Your task to perform on an android device: install app "Microsoft Excel" Image 0: 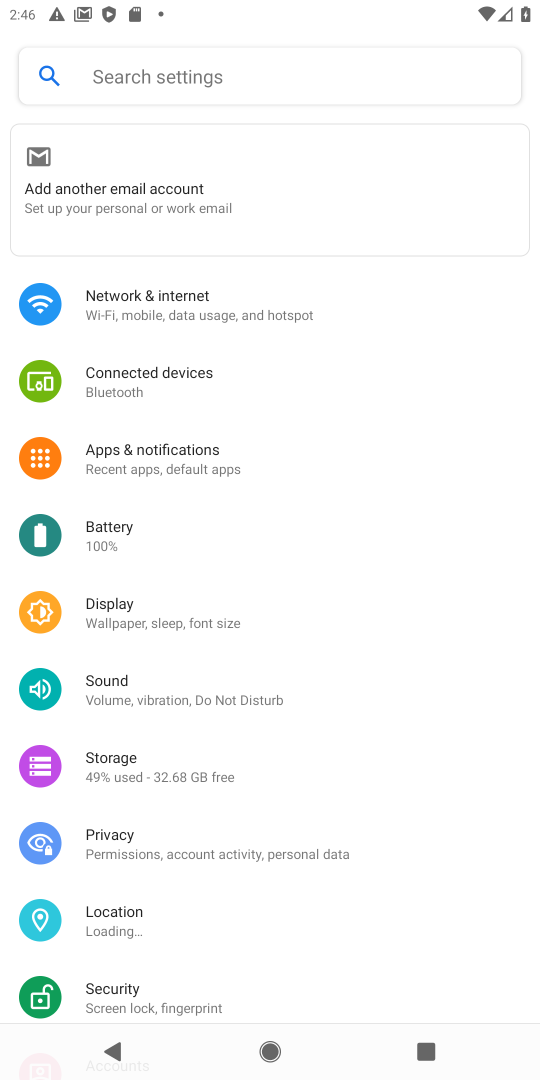
Step 0: press home button
Your task to perform on an android device: install app "Microsoft Excel" Image 1: 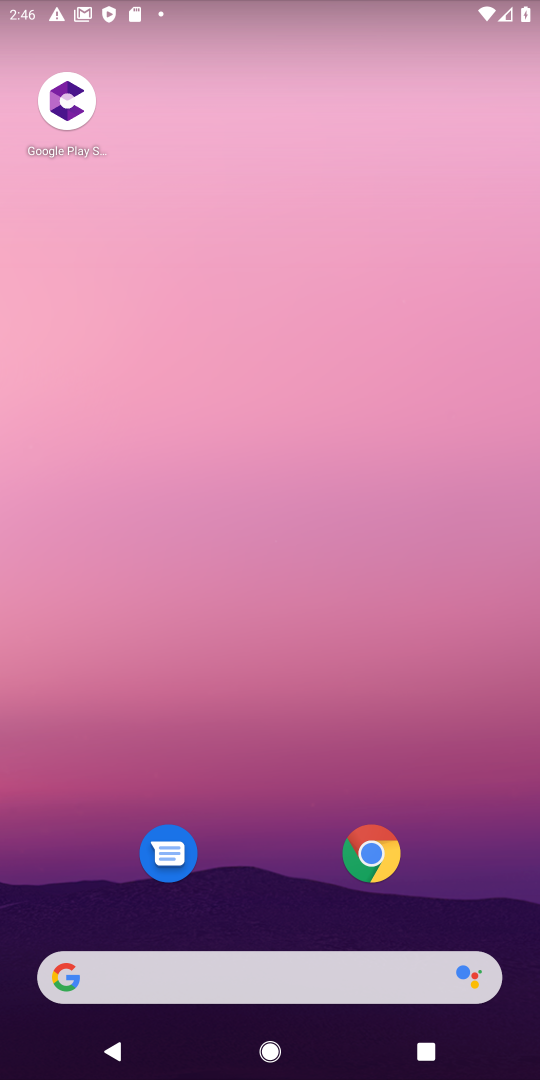
Step 1: drag from (291, 898) to (291, 389)
Your task to perform on an android device: install app "Microsoft Excel" Image 2: 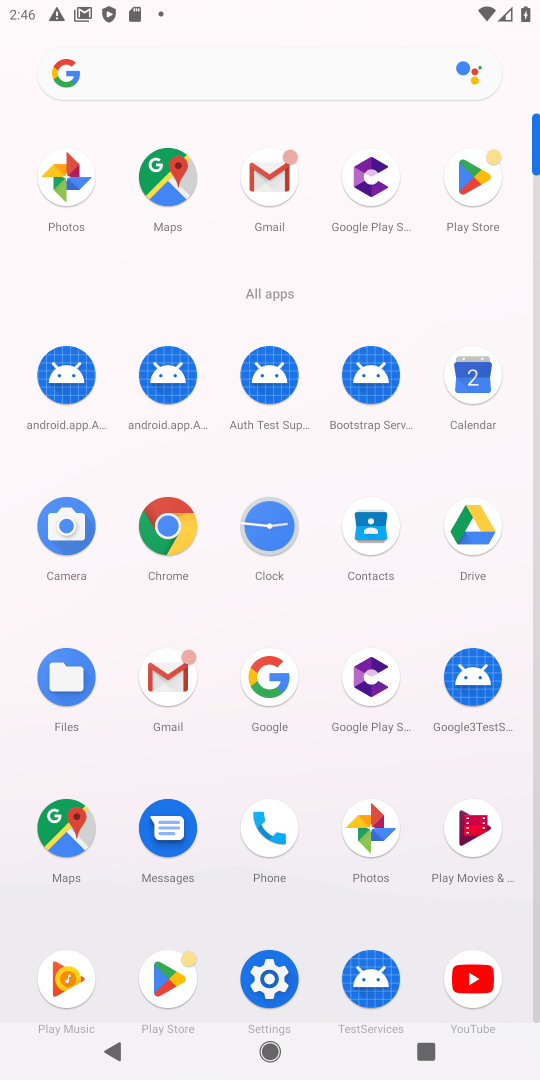
Step 2: click (461, 161)
Your task to perform on an android device: install app "Microsoft Excel" Image 3: 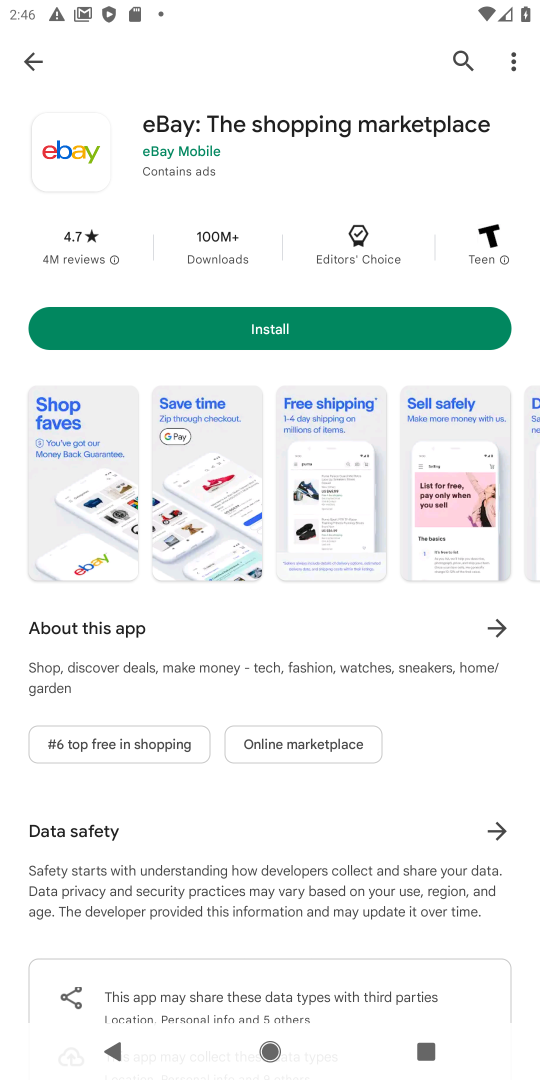
Step 3: click (463, 59)
Your task to perform on an android device: install app "Microsoft Excel" Image 4: 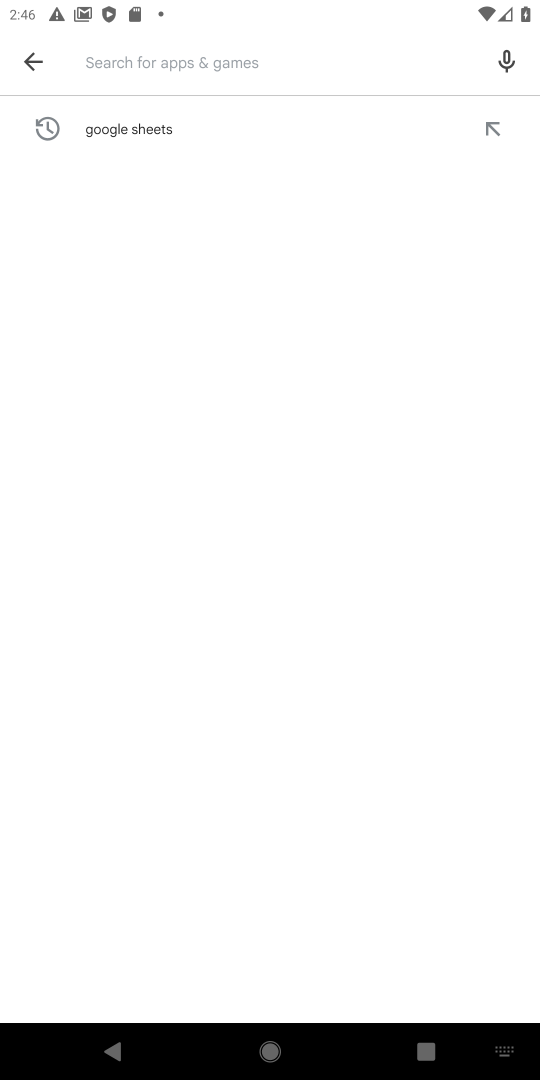
Step 4: type "microsoft excel"
Your task to perform on an android device: install app "Microsoft Excel" Image 5: 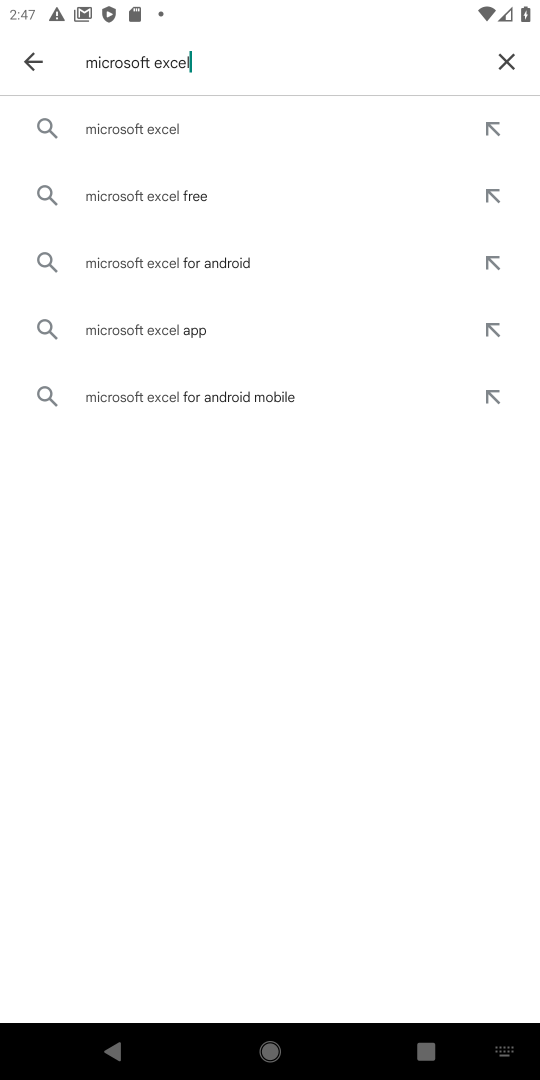
Step 5: click (361, 117)
Your task to perform on an android device: install app "Microsoft Excel" Image 6: 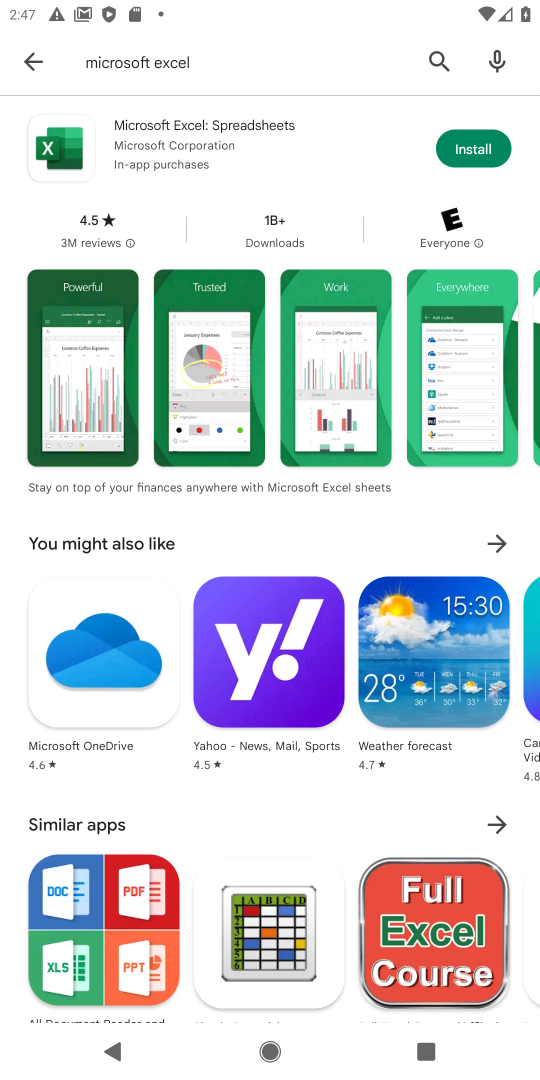
Step 6: click (250, 149)
Your task to perform on an android device: install app "Microsoft Excel" Image 7: 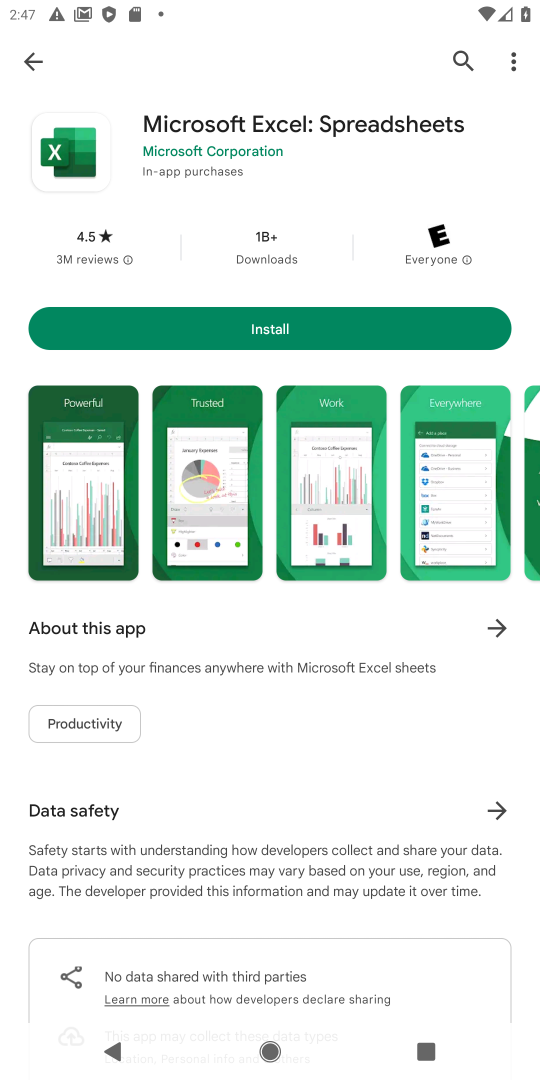
Step 7: click (313, 332)
Your task to perform on an android device: install app "Microsoft Excel" Image 8: 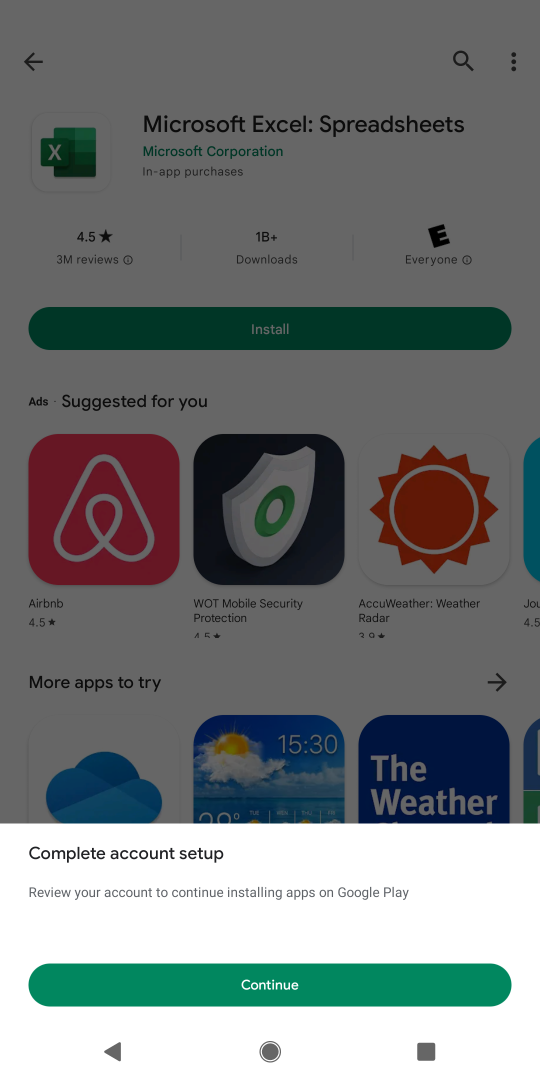
Step 8: click (313, 332)
Your task to perform on an android device: install app "Microsoft Excel" Image 9: 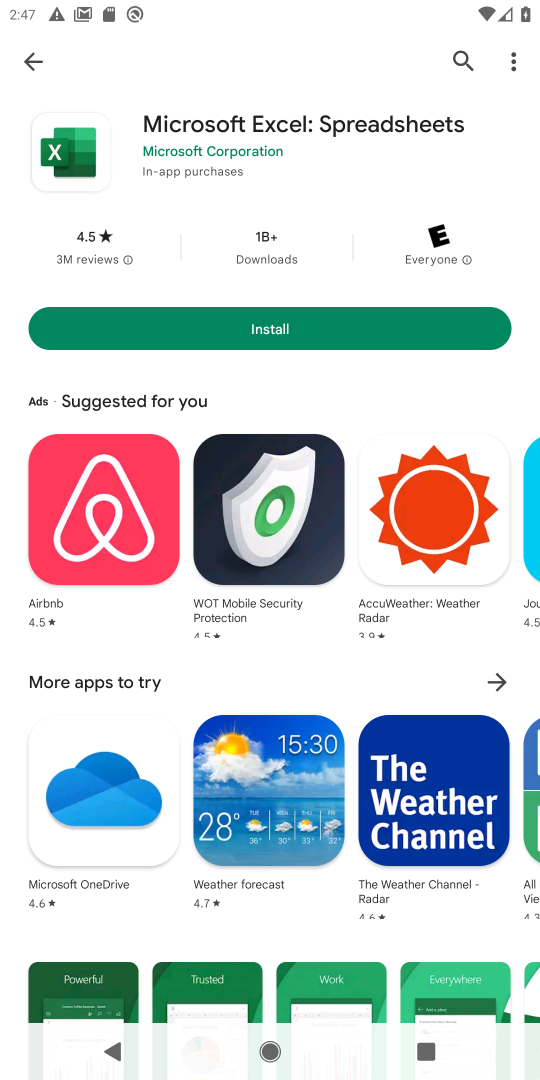
Step 9: click (296, 345)
Your task to perform on an android device: install app "Microsoft Excel" Image 10: 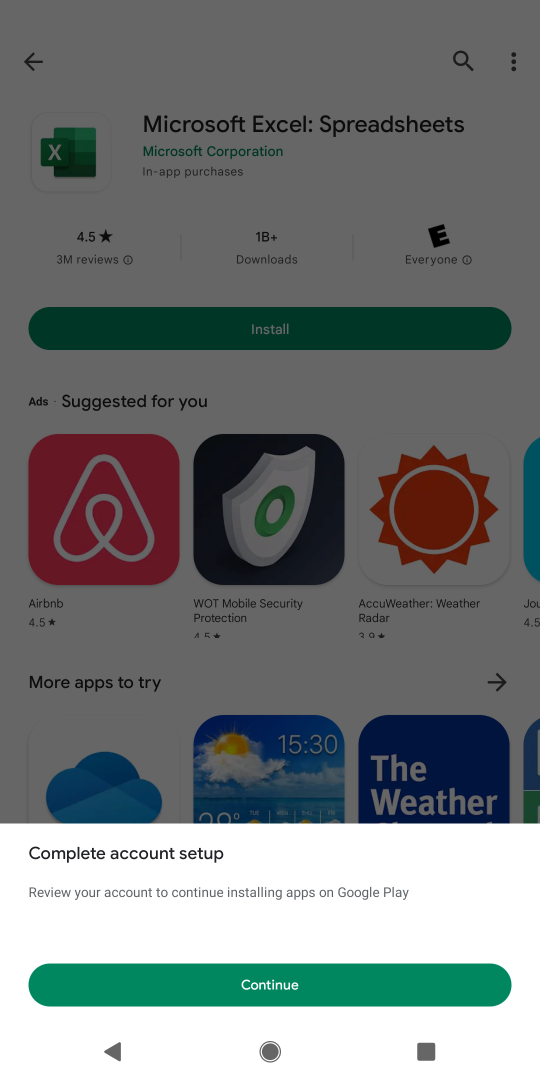
Step 10: click (276, 974)
Your task to perform on an android device: install app "Microsoft Excel" Image 11: 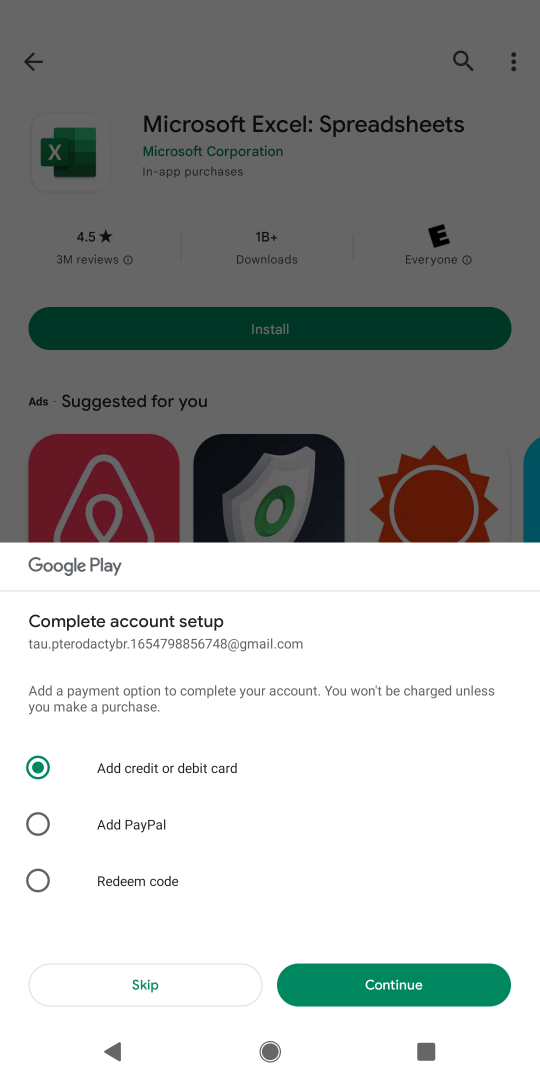
Step 11: click (210, 984)
Your task to perform on an android device: install app "Microsoft Excel" Image 12: 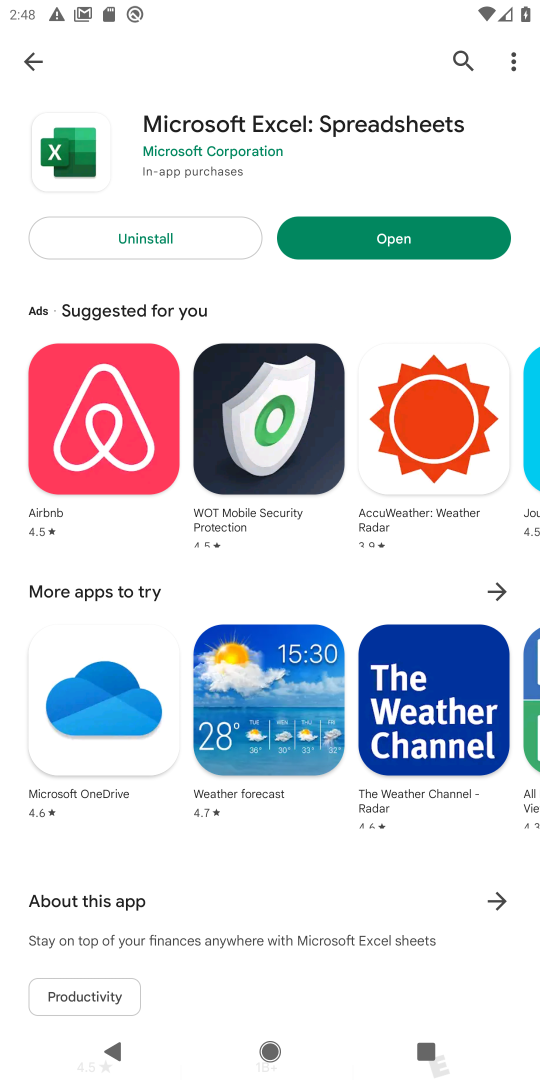
Step 12: task complete